Your task to perform on an android device: Open Maps and search for coffee Image 0: 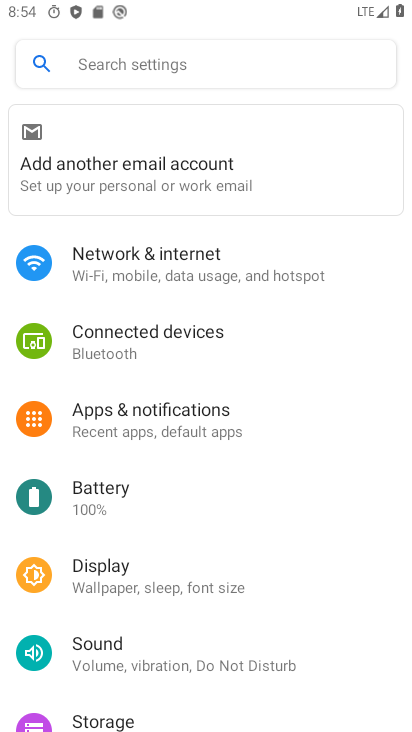
Step 0: press back button
Your task to perform on an android device: Open Maps and search for coffee Image 1: 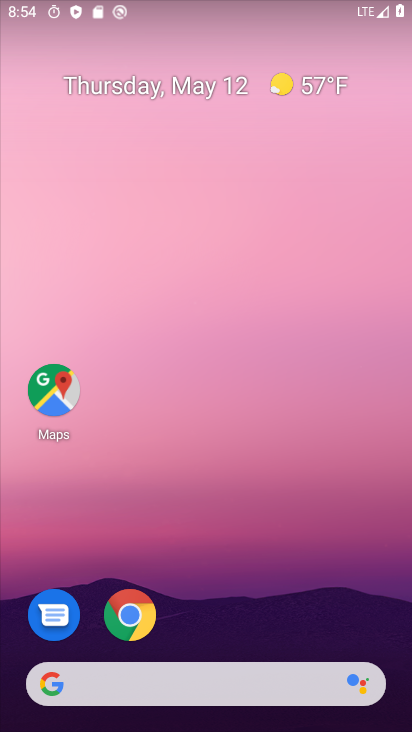
Step 1: drag from (221, 539) to (228, 46)
Your task to perform on an android device: Open Maps and search for coffee Image 2: 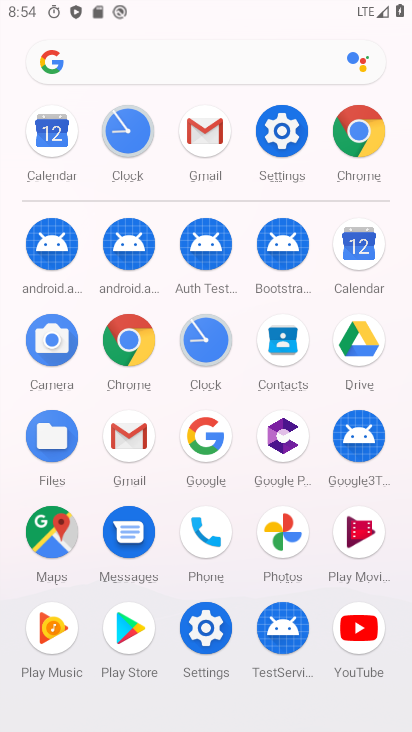
Step 2: drag from (10, 544) to (10, 215)
Your task to perform on an android device: Open Maps and search for coffee Image 3: 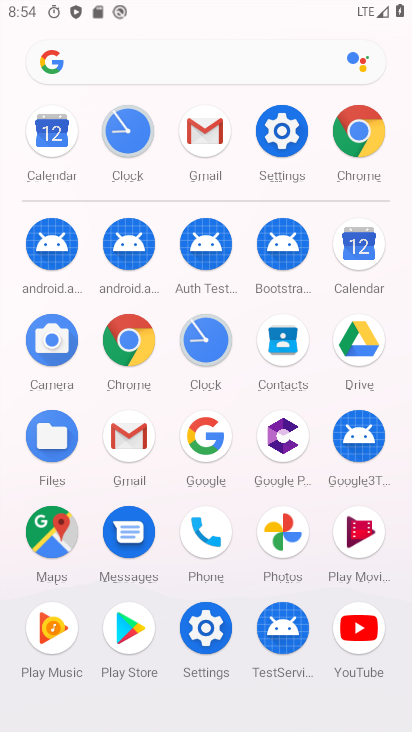
Step 3: click (55, 532)
Your task to perform on an android device: Open Maps and search for coffee Image 4: 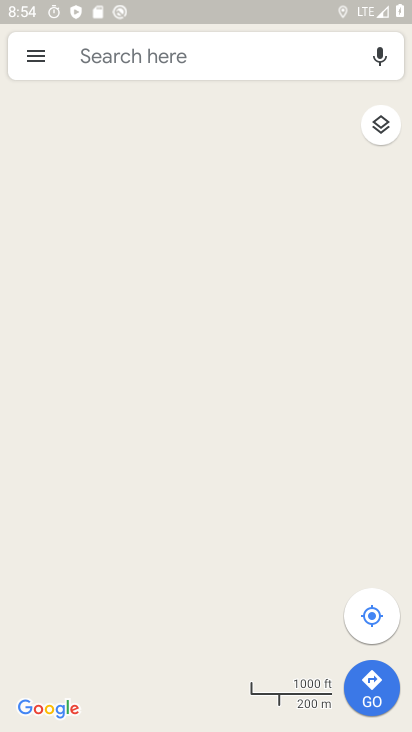
Step 4: click (201, 47)
Your task to perform on an android device: Open Maps and search for coffee Image 5: 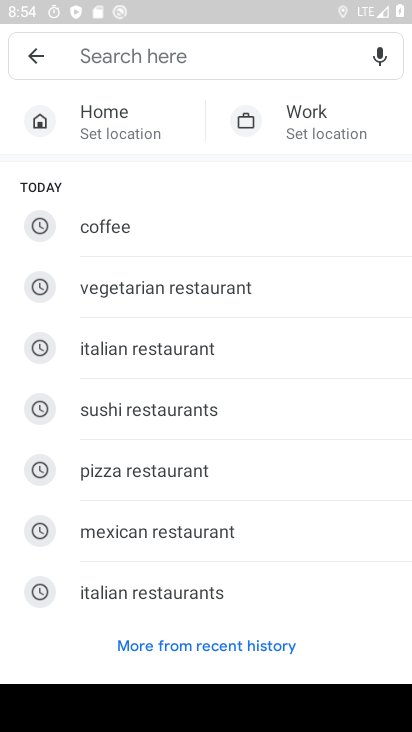
Step 5: click (132, 222)
Your task to perform on an android device: Open Maps and search for coffee Image 6: 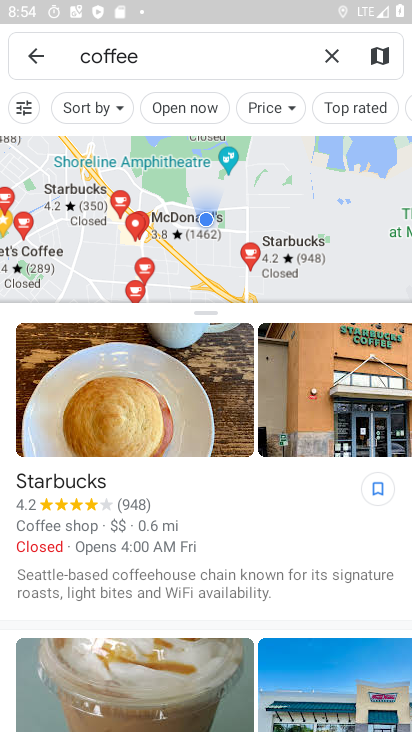
Step 6: task complete